Your task to perform on an android device: Check the weather Image 0: 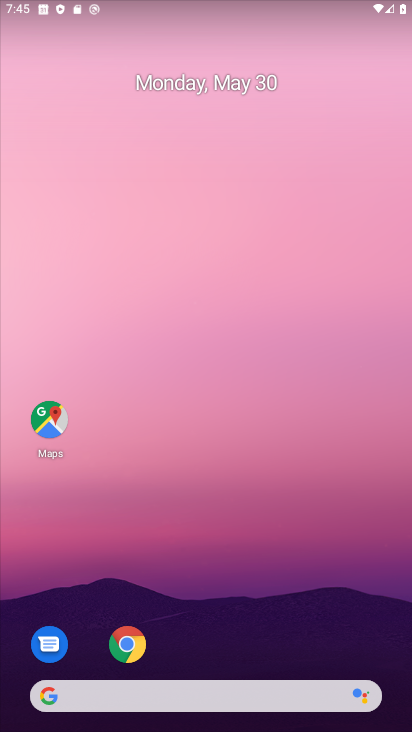
Step 0: drag from (269, 614) to (195, 231)
Your task to perform on an android device: Check the weather Image 1: 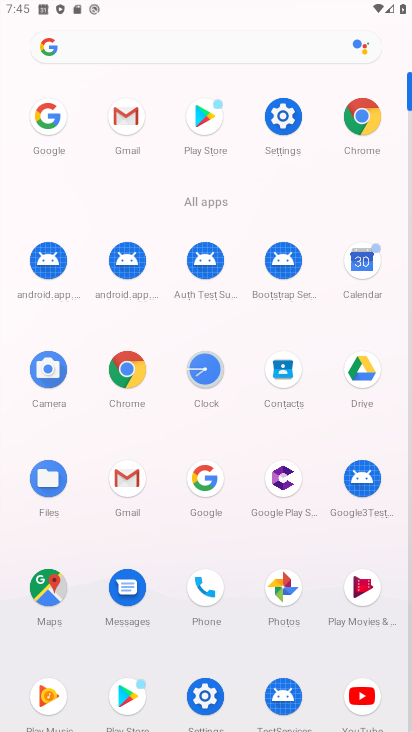
Step 1: click (45, 113)
Your task to perform on an android device: Check the weather Image 2: 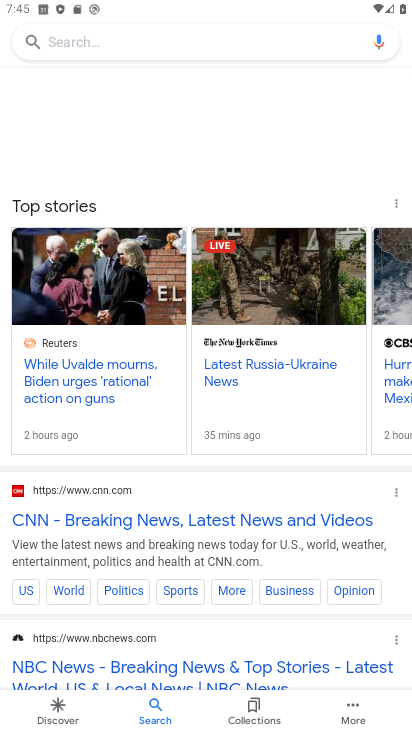
Step 2: click (156, 45)
Your task to perform on an android device: Check the weather Image 3: 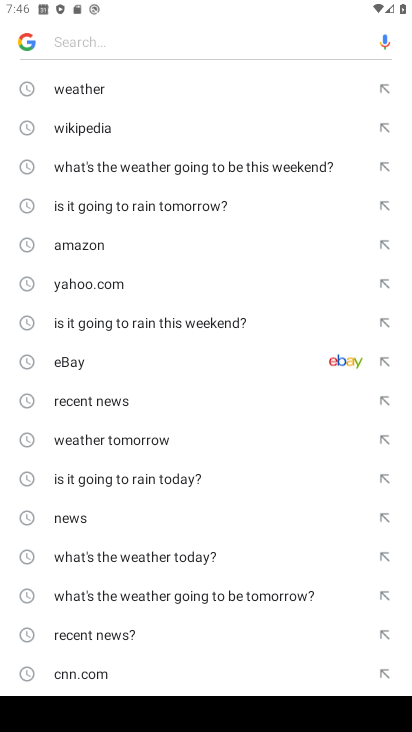
Step 3: type "weather"
Your task to perform on an android device: Check the weather Image 4: 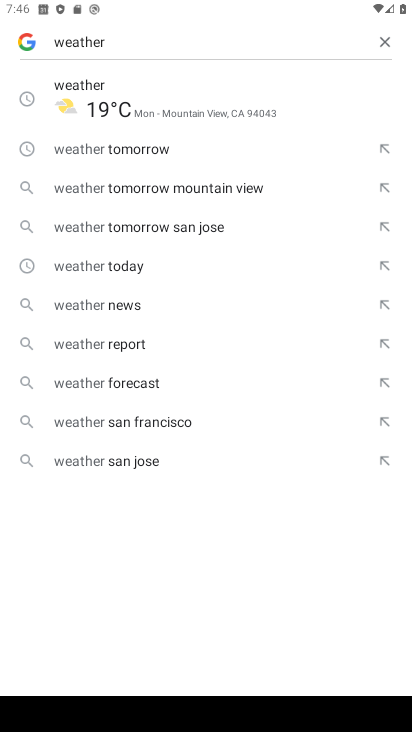
Step 4: click (171, 107)
Your task to perform on an android device: Check the weather Image 5: 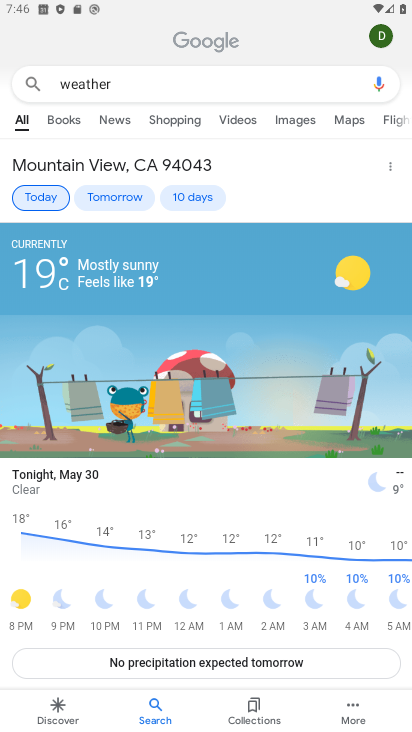
Step 5: task complete